Your task to perform on an android device: Open settings on Google Maps Image 0: 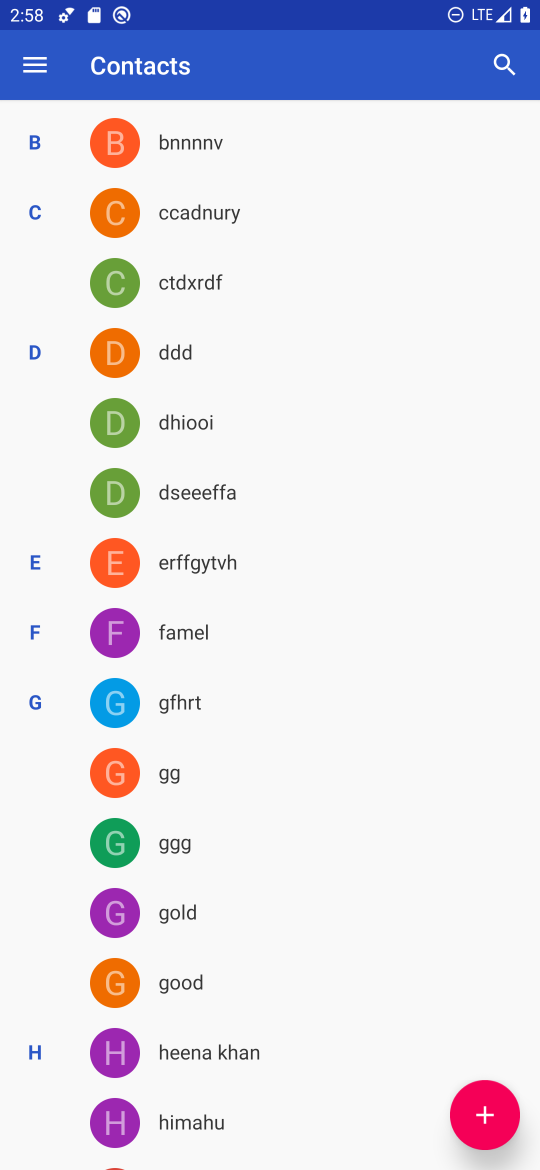
Step 0: press home button
Your task to perform on an android device: Open settings on Google Maps Image 1: 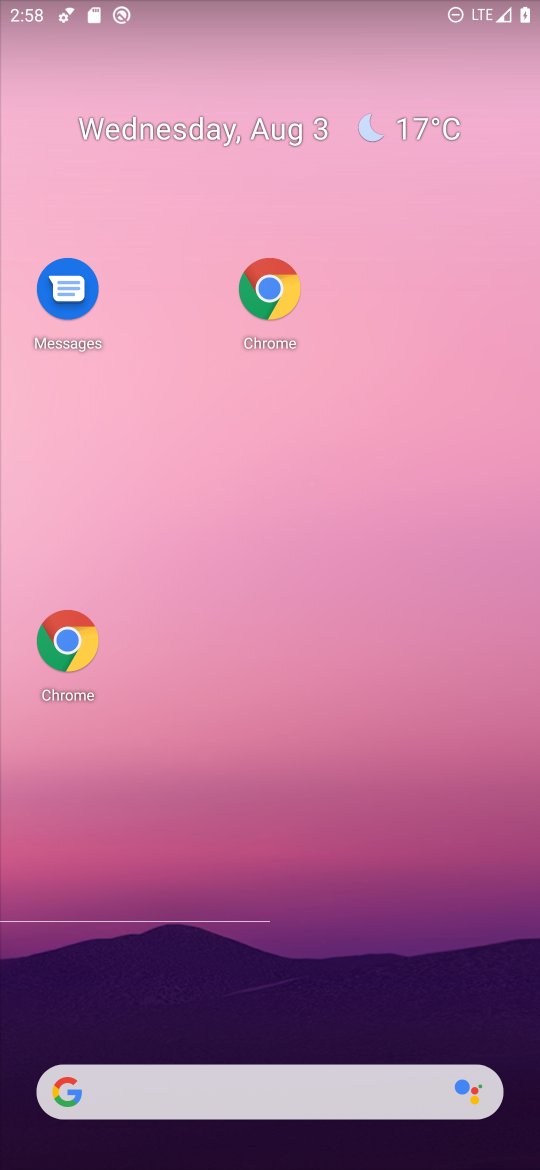
Step 1: drag from (373, 1030) to (338, 236)
Your task to perform on an android device: Open settings on Google Maps Image 2: 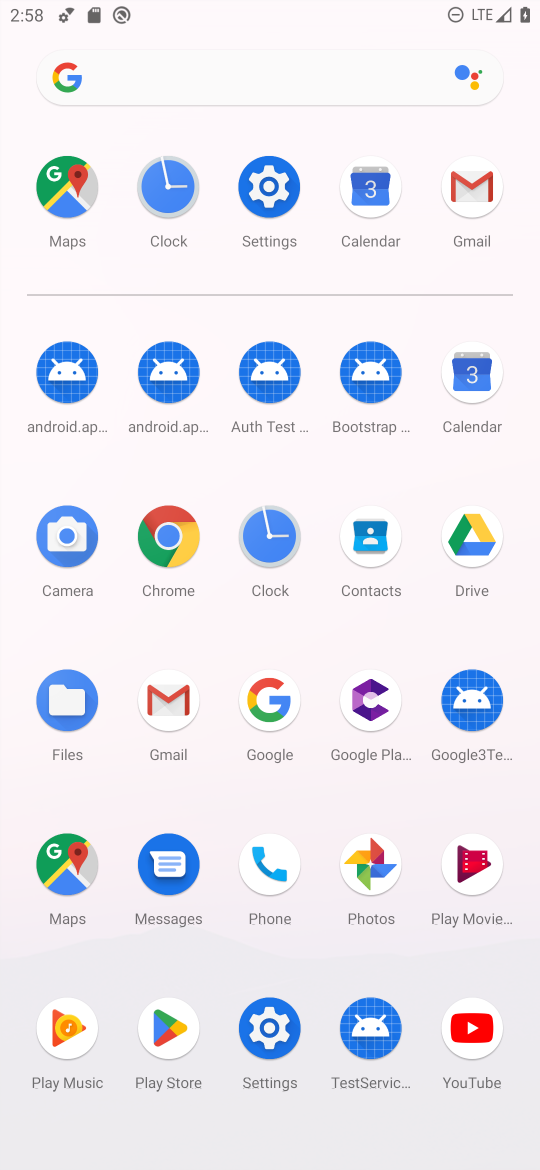
Step 2: click (66, 887)
Your task to perform on an android device: Open settings on Google Maps Image 3: 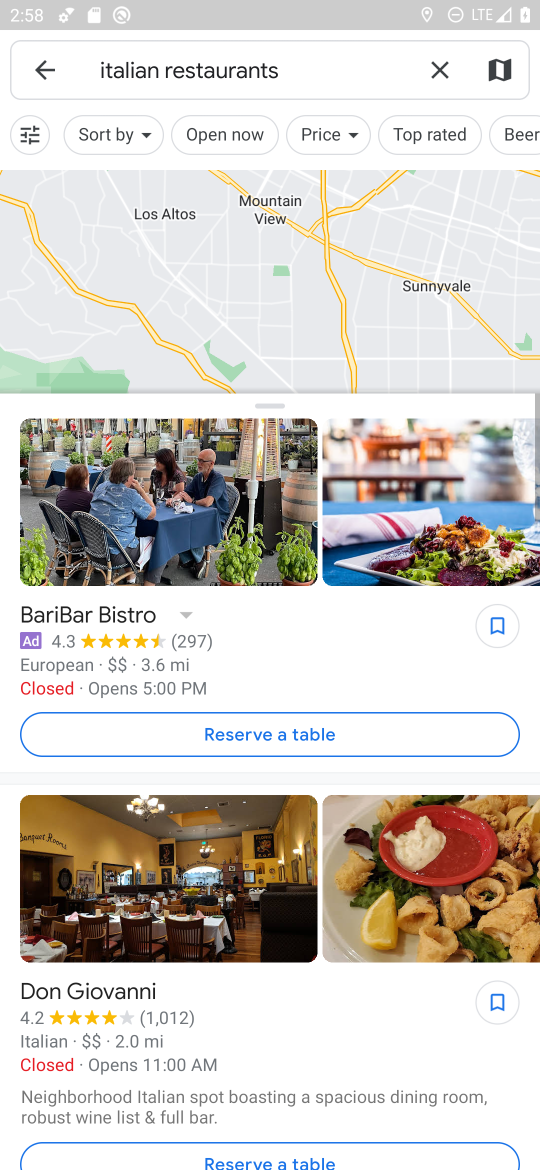
Step 3: task complete